Your task to perform on an android device: turn off location history Image 0: 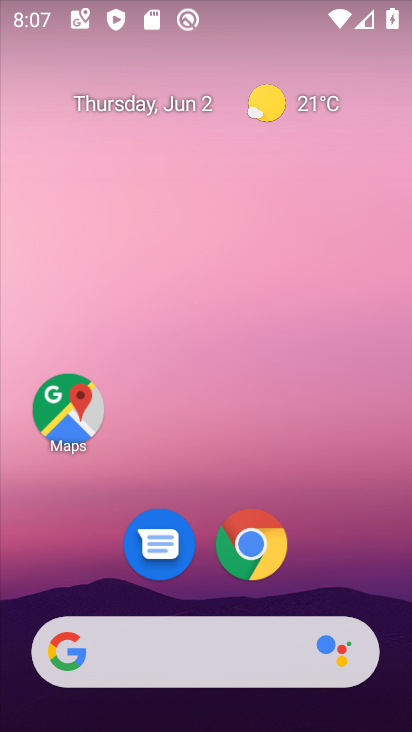
Step 0: drag from (323, 546) to (280, 77)
Your task to perform on an android device: turn off location history Image 1: 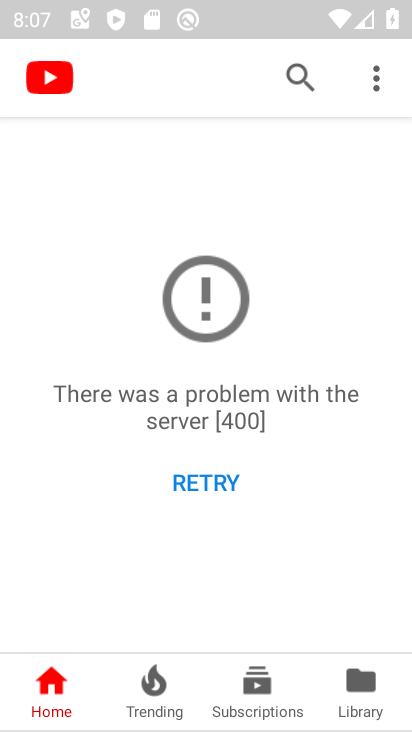
Step 1: press home button
Your task to perform on an android device: turn off location history Image 2: 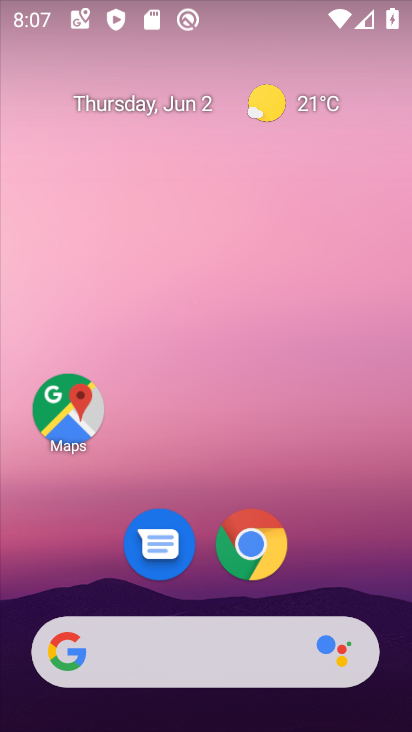
Step 2: click (78, 429)
Your task to perform on an android device: turn off location history Image 3: 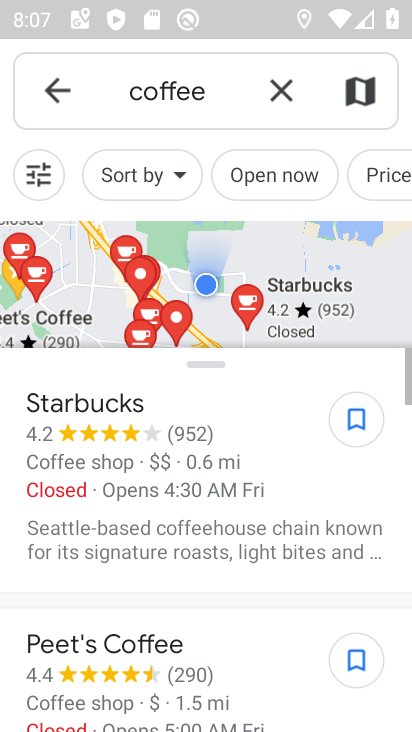
Step 3: click (65, 88)
Your task to perform on an android device: turn off location history Image 4: 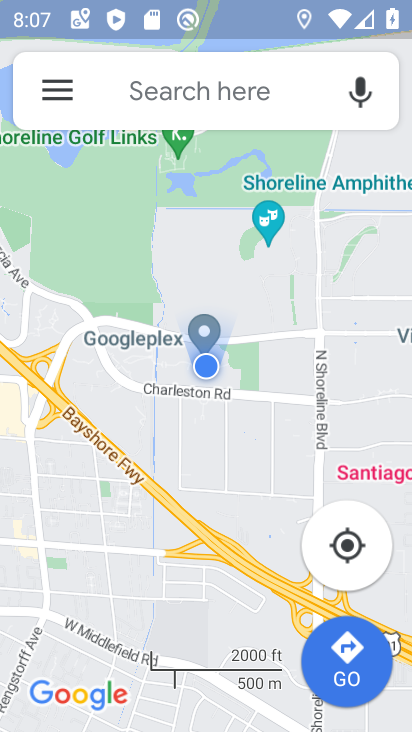
Step 4: click (65, 88)
Your task to perform on an android device: turn off location history Image 5: 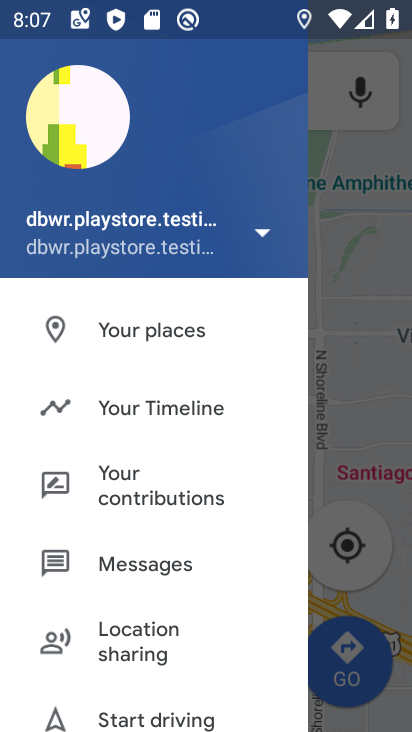
Step 5: click (162, 423)
Your task to perform on an android device: turn off location history Image 6: 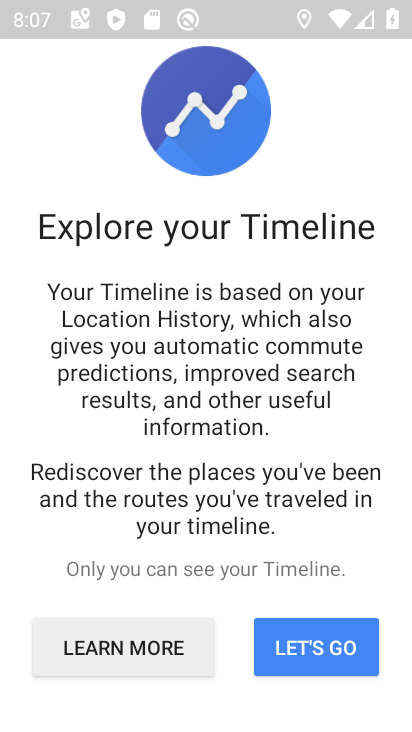
Step 6: click (343, 626)
Your task to perform on an android device: turn off location history Image 7: 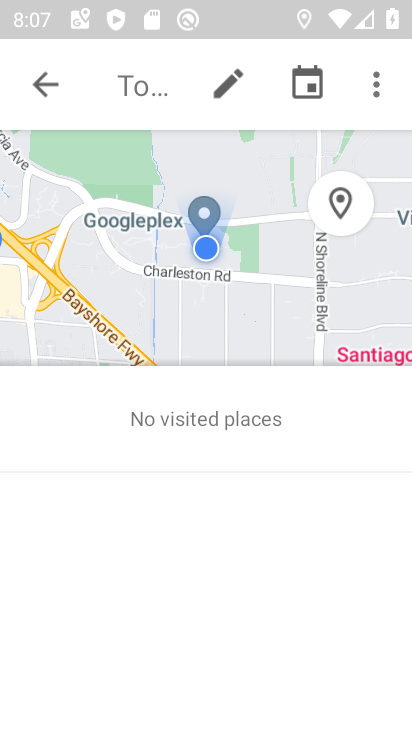
Step 7: click (379, 101)
Your task to perform on an android device: turn off location history Image 8: 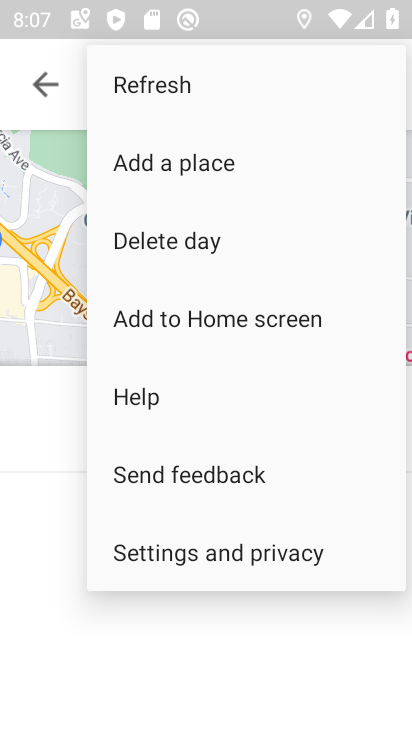
Step 8: click (263, 534)
Your task to perform on an android device: turn off location history Image 9: 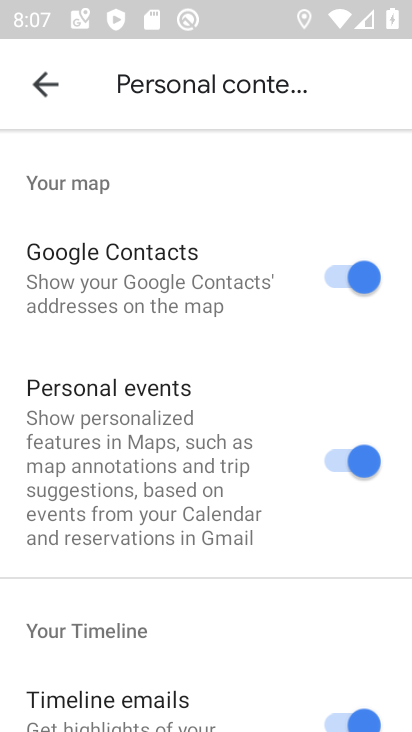
Step 9: drag from (265, 648) to (234, 58)
Your task to perform on an android device: turn off location history Image 10: 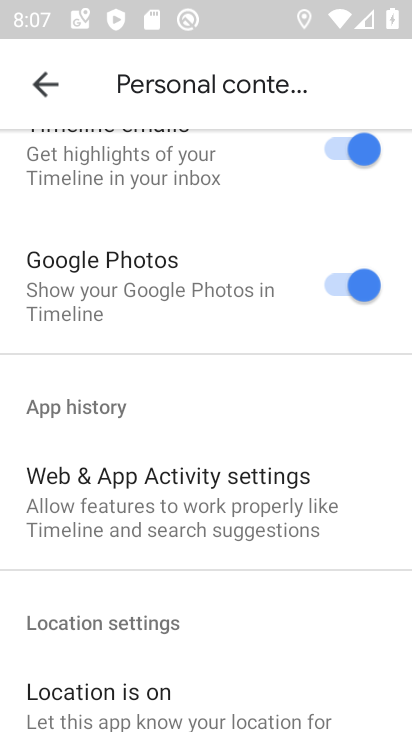
Step 10: drag from (271, 606) to (236, 181)
Your task to perform on an android device: turn off location history Image 11: 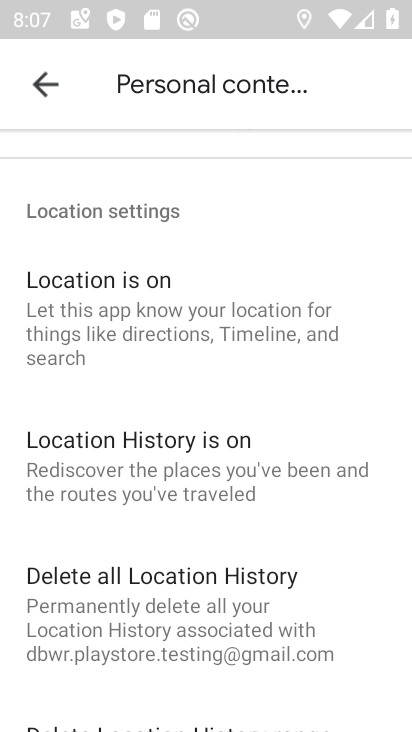
Step 11: click (267, 454)
Your task to perform on an android device: turn off location history Image 12: 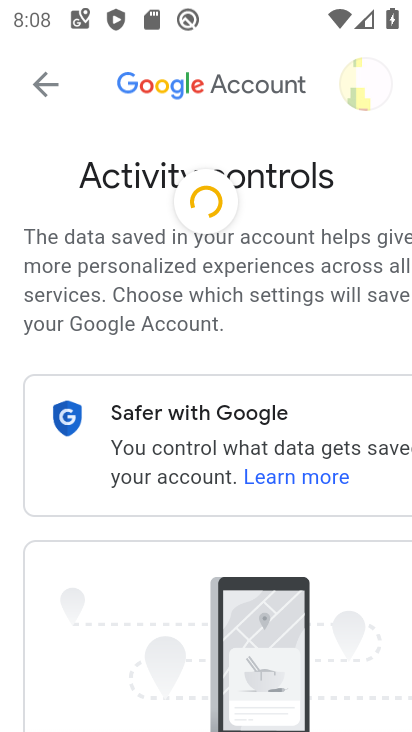
Step 12: click (267, 454)
Your task to perform on an android device: turn off location history Image 13: 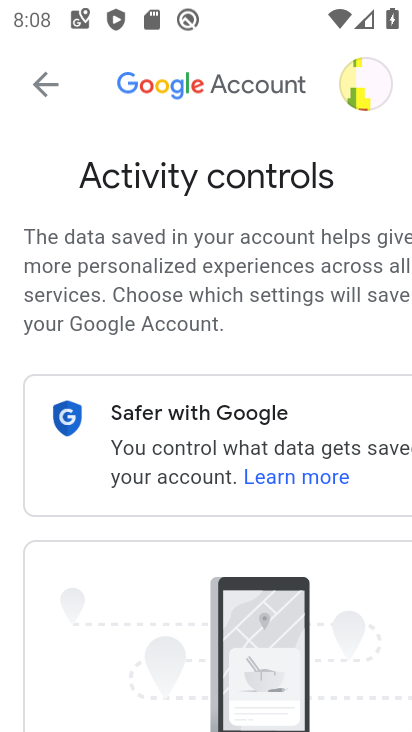
Step 13: click (267, 454)
Your task to perform on an android device: turn off location history Image 14: 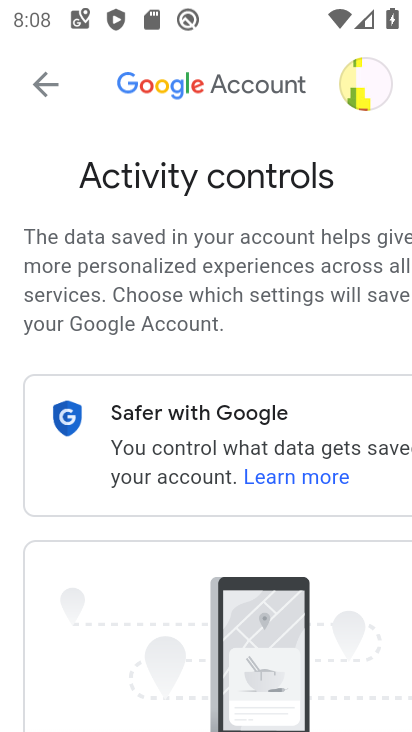
Step 14: task complete